Your task to perform on an android device: Do I have any events tomorrow? Image 0: 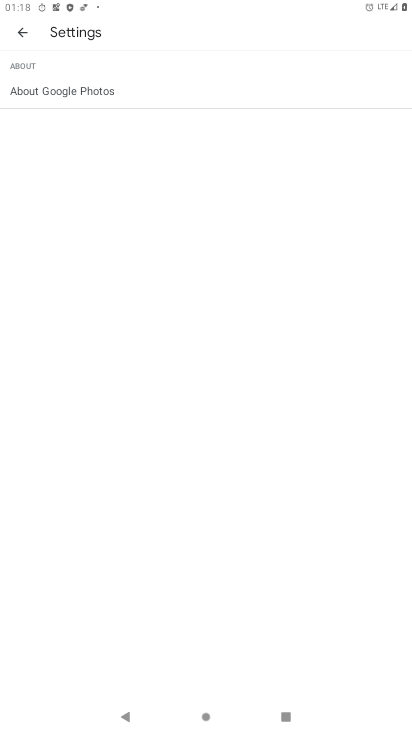
Step 0: press home button
Your task to perform on an android device: Do I have any events tomorrow? Image 1: 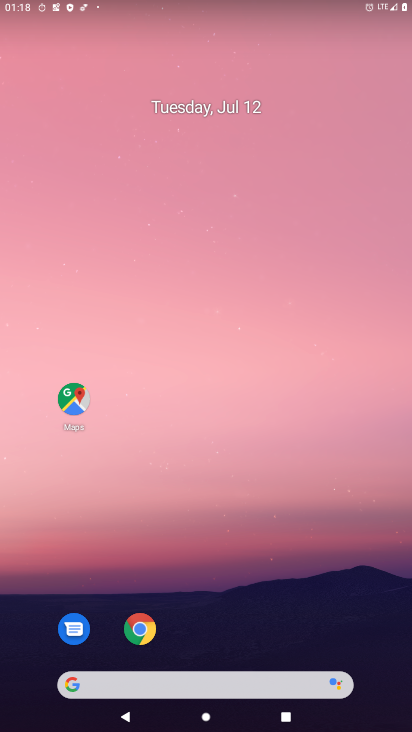
Step 1: drag from (11, 721) to (377, 49)
Your task to perform on an android device: Do I have any events tomorrow? Image 2: 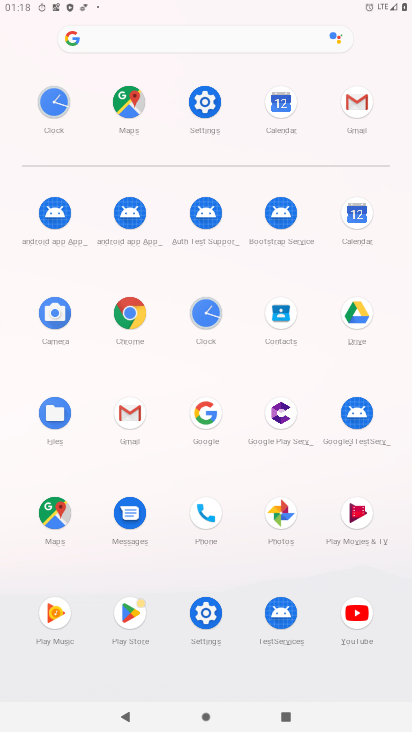
Step 2: click (357, 218)
Your task to perform on an android device: Do I have any events tomorrow? Image 3: 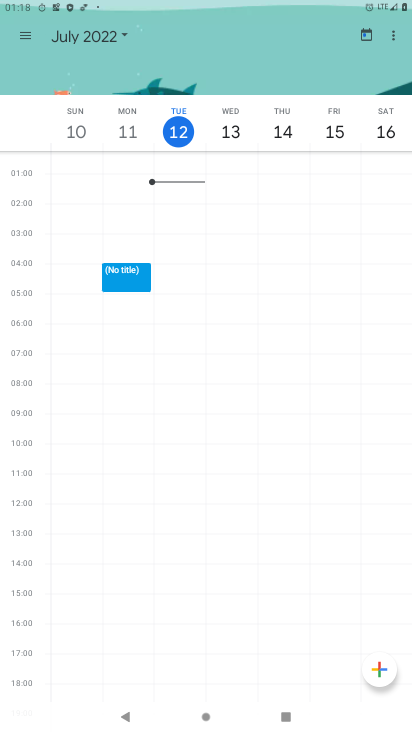
Step 3: task complete